Your task to perform on an android device: Go to notification settings Image 0: 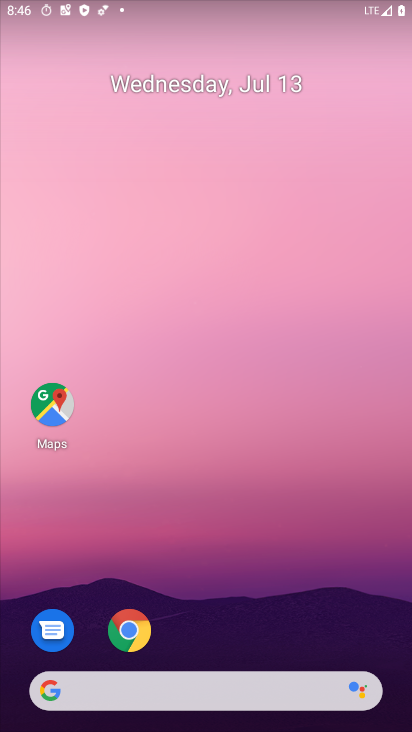
Step 0: drag from (344, 629) to (368, 323)
Your task to perform on an android device: Go to notification settings Image 1: 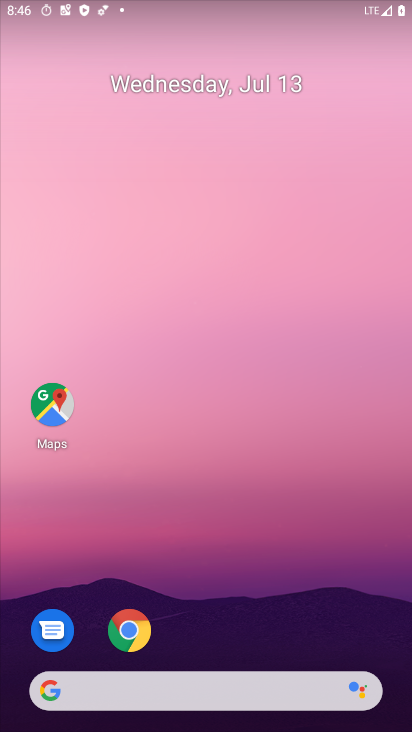
Step 1: drag from (315, 625) to (301, 150)
Your task to perform on an android device: Go to notification settings Image 2: 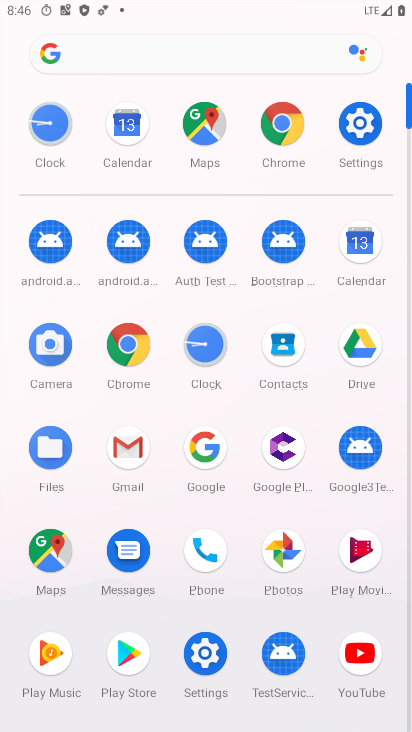
Step 2: click (348, 128)
Your task to perform on an android device: Go to notification settings Image 3: 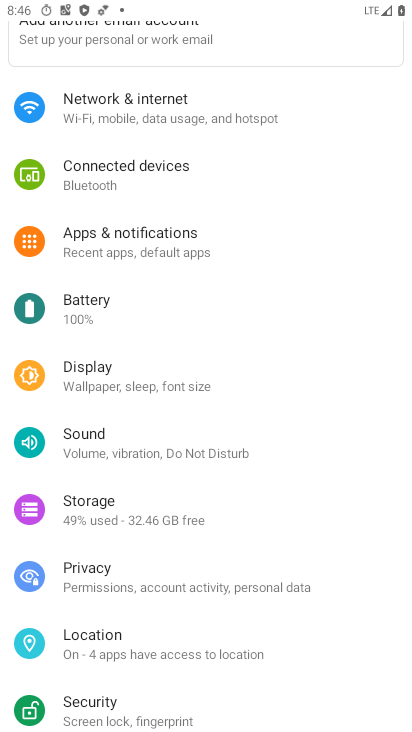
Step 3: drag from (324, 421) to (336, 288)
Your task to perform on an android device: Go to notification settings Image 4: 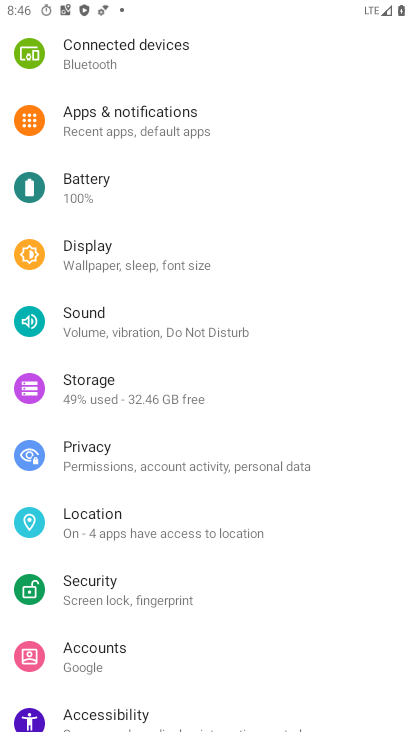
Step 4: drag from (370, 468) to (348, 291)
Your task to perform on an android device: Go to notification settings Image 5: 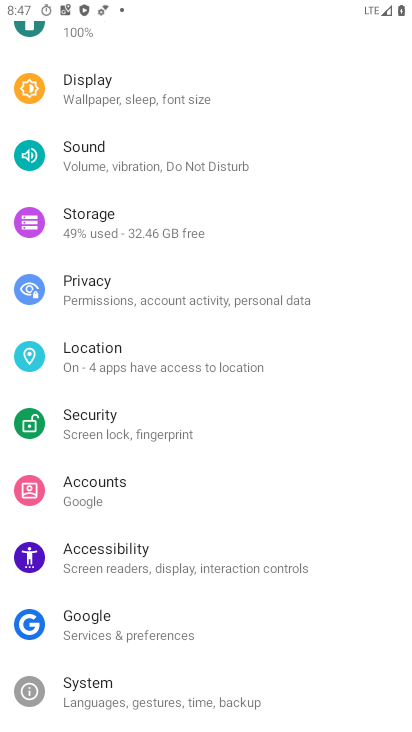
Step 5: drag from (336, 449) to (340, 305)
Your task to perform on an android device: Go to notification settings Image 6: 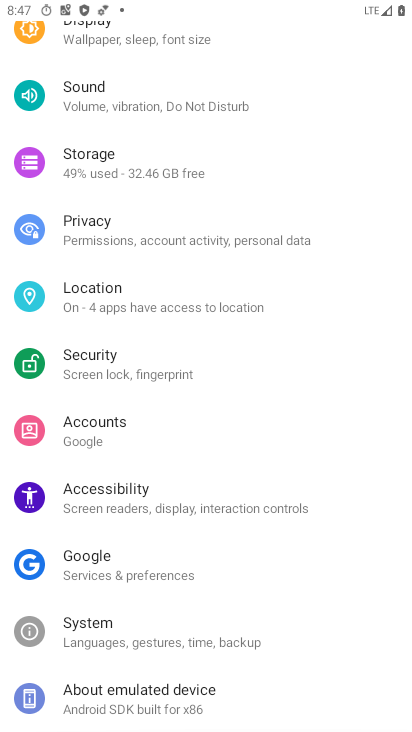
Step 6: drag from (347, 248) to (349, 407)
Your task to perform on an android device: Go to notification settings Image 7: 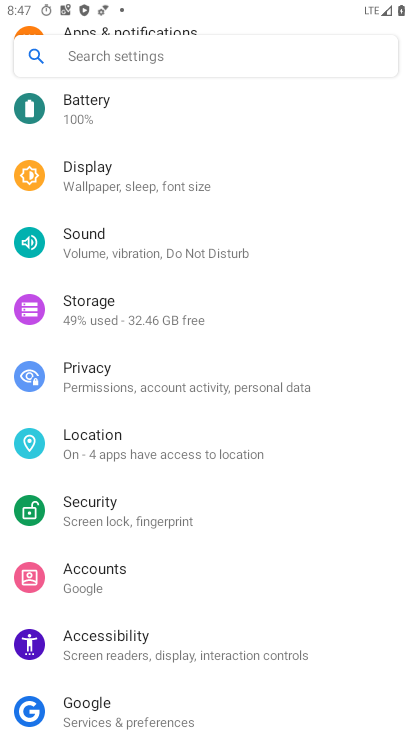
Step 7: drag from (345, 238) to (344, 395)
Your task to perform on an android device: Go to notification settings Image 8: 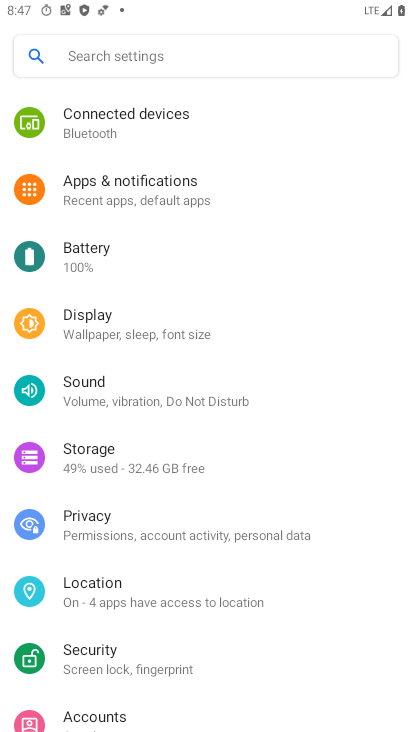
Step 8: drag from (330, 229) to (339, 411)
Your task to perform on an android device: Go to notification settings Image 9: 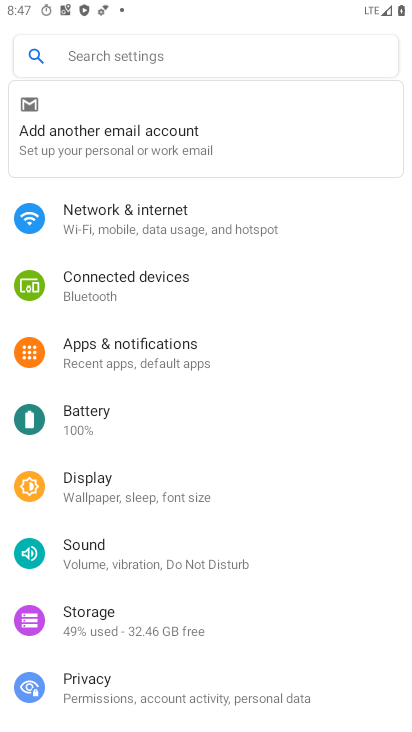
Step 9: click (215, 342)
Your task to perform on an android device: Go to notification settings Image 10: 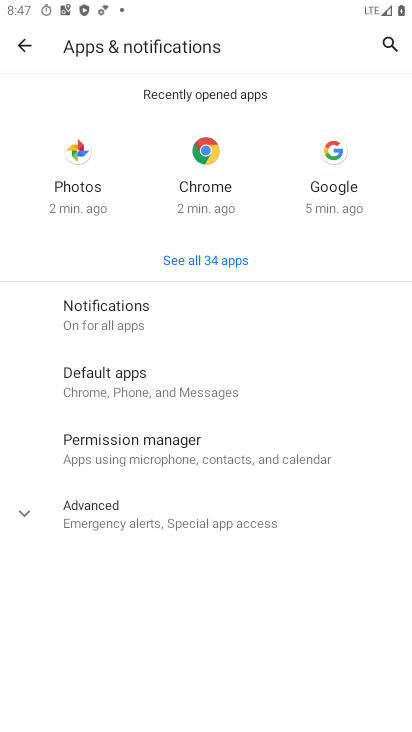
Step 10: click (172, 318)
Your task to perform on an android device: Go to notification settings Image 11: 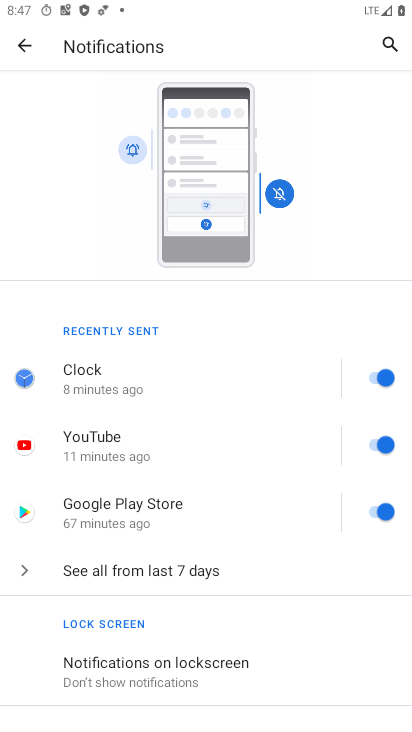
Step 11: task complete